Your task to perform on an android device: Open the phone app and click the voicemail tab. Image 0: 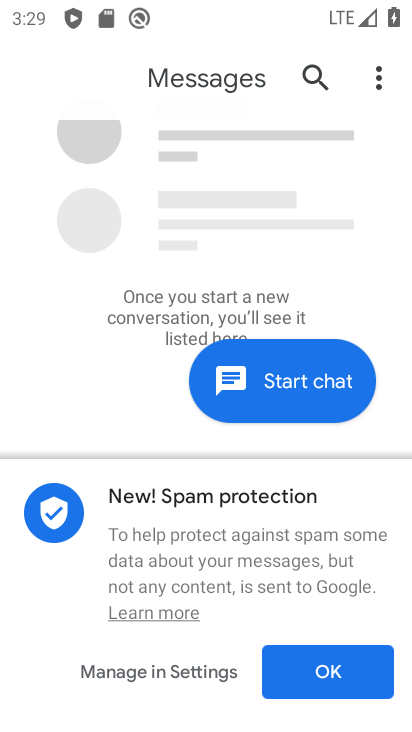
Step 0: press back button
Your task to perform on an android device: Open the phone app and click the voicemail tab. Image 1: 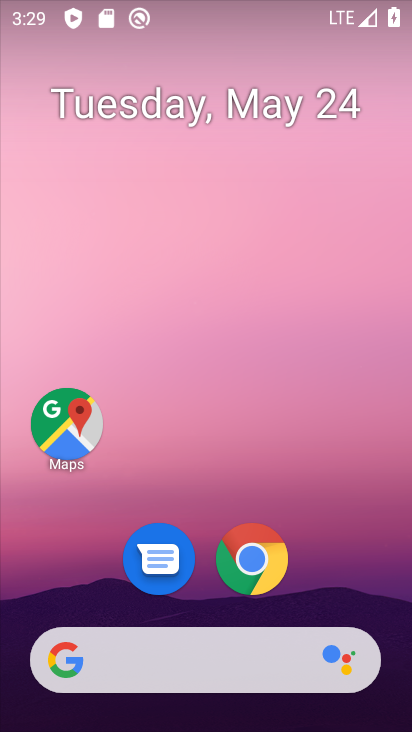
Step 1: drag from (323, 546) to (307, 132)
Your task to perform on an android device: Open the phone app and click the voicemail tab. Image 2: 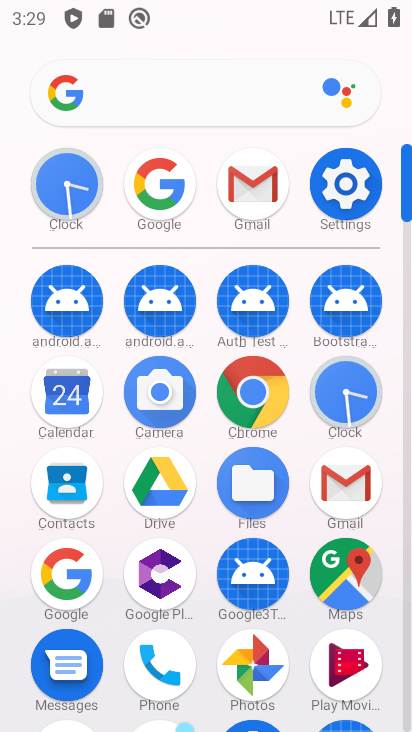
Step 2: click (152, 672)
Your task to perform on an android device: Open the phone app and click the voicemail tab. Image 3: 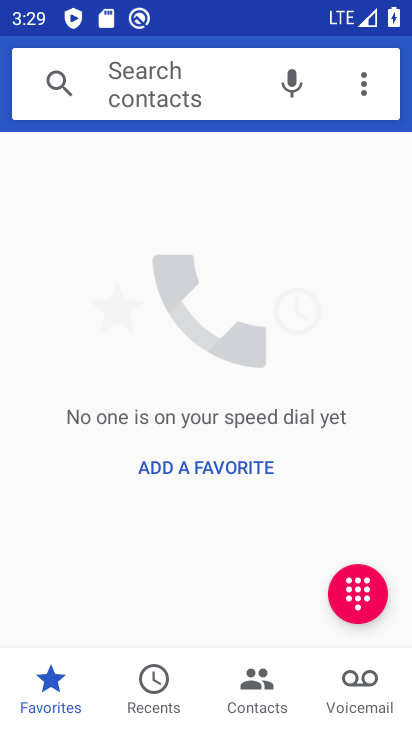
Step 3: click (355, 683)
Your task to perform on an android device: Open the phone app and click the voicemail tab. Image 4: 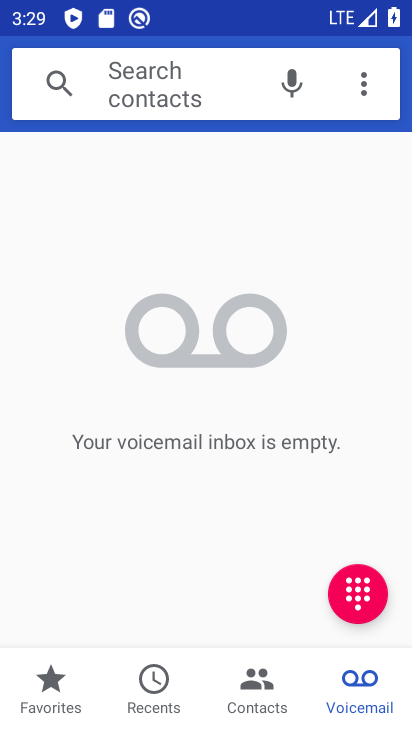
Step 4: task complete